Your task to perform on an android device: turn on the 12-hour format for clock Image 0: 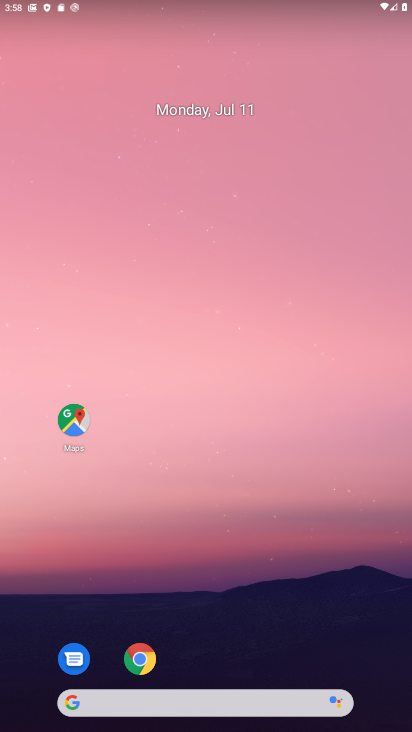
Step 0: drag from (210, 646) to (253, 163)
Your task to perform on an android device: turn on the 12-hour format for clock Image 1: 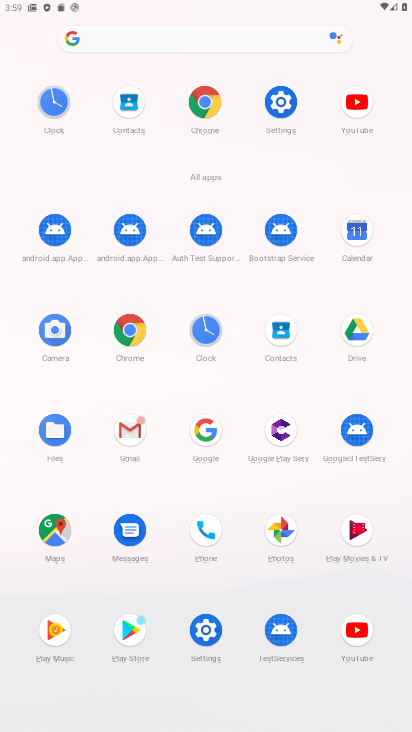
Step 1: click (36, 109)
Your task to perform on an android device: turn on the 12-hour format for clock Image 2: 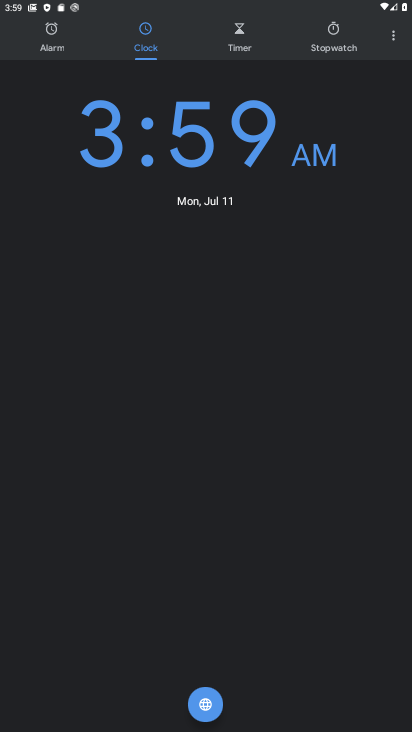
Step 2: click (387, 48)
Your task to perform on an android device: turn on the 12-hour format for clock Image 3: 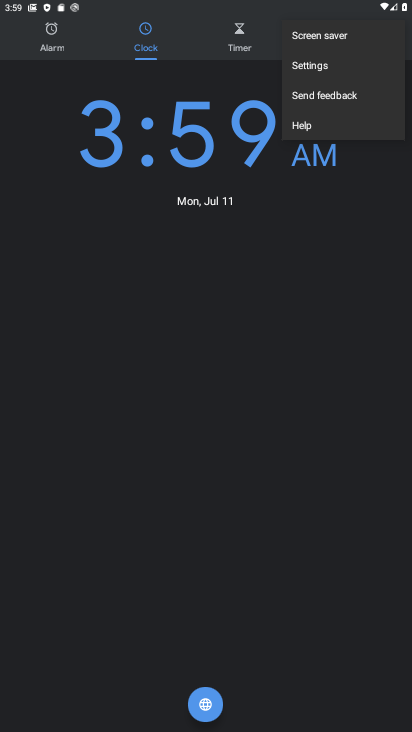
Step 3: click (349, 66)
Your task to perform on an android device: turn on the 12-hour format for clock Image 4: 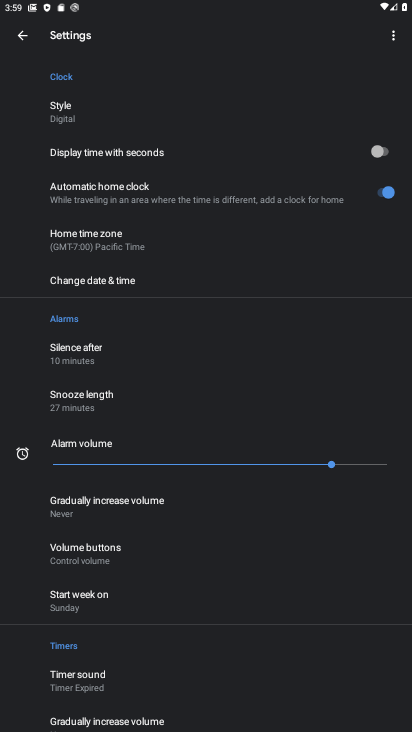
Step 4: task complete